Your task to perform on an android device: open sync settings in chrome Image 0: 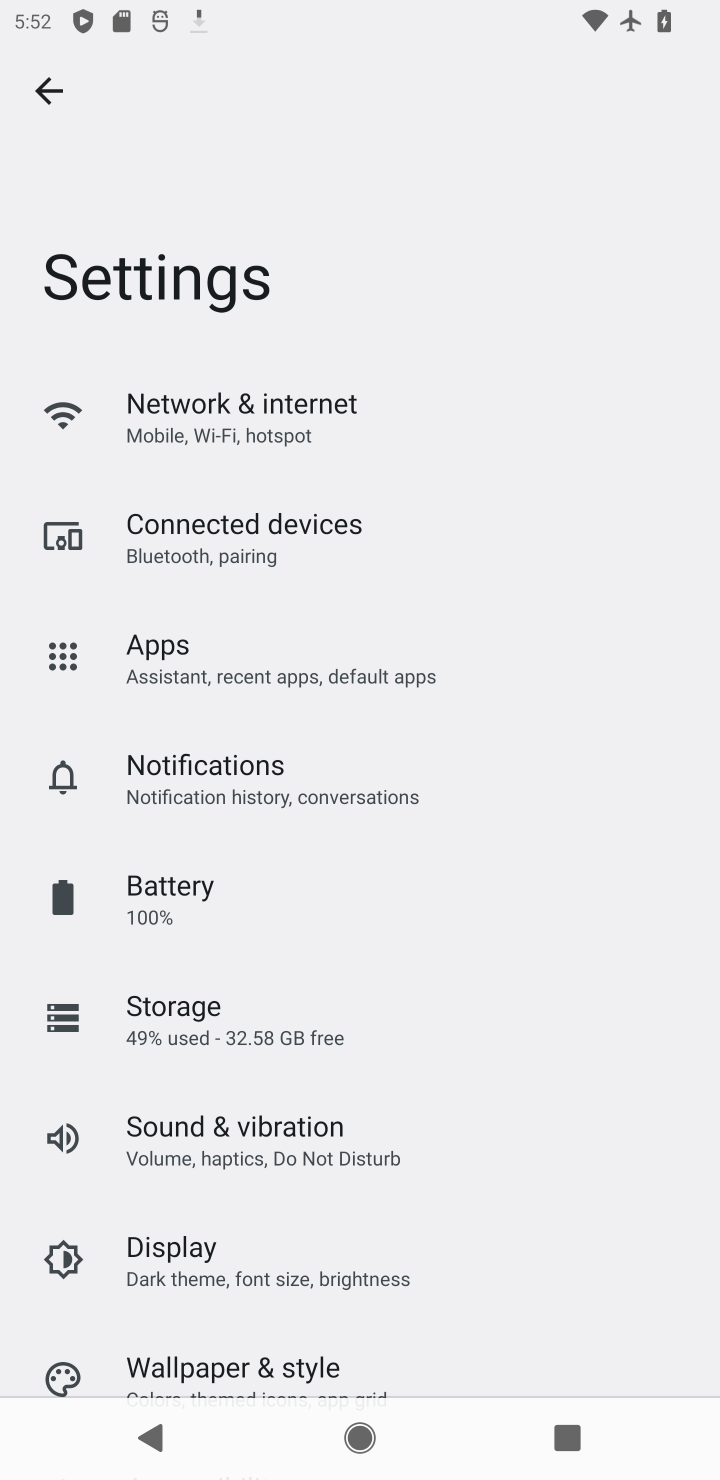
Step 0: press home button
Your task to perform on an android device: open sync settings in chrome Image 1: 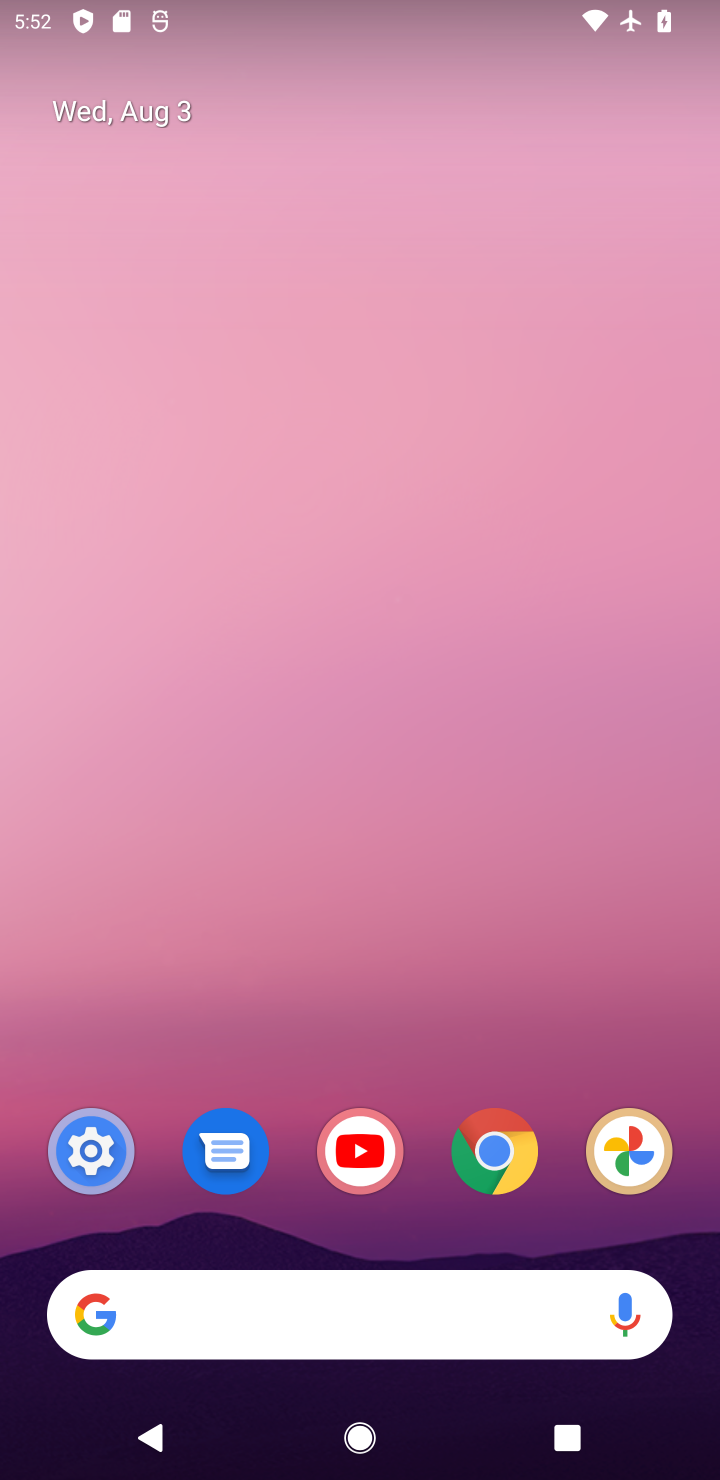
Step 1: click (521, 1161)
Your task to perform on an android device: open sync settings in chrome Image 2: 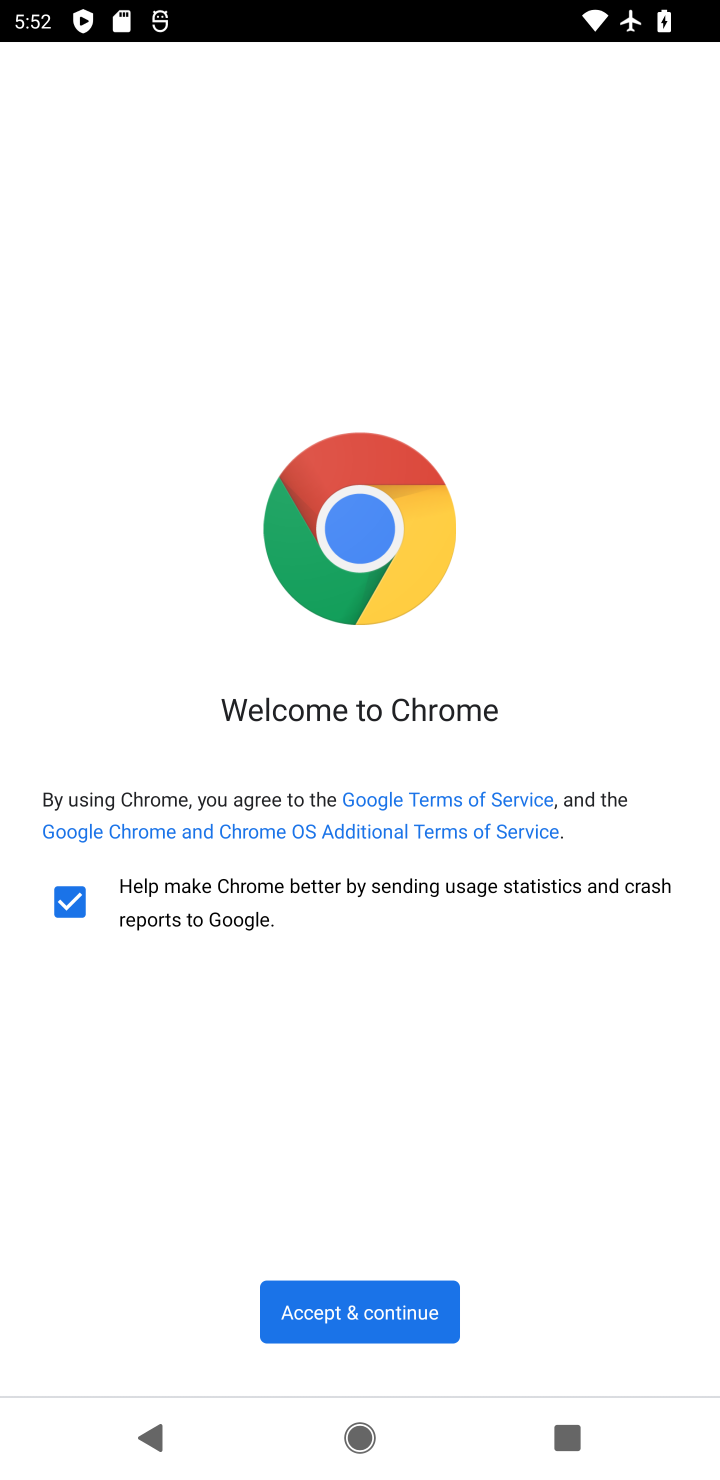
Step 2: click (421, 1298)
Your task to perform on an android device: open sync settings in chrome Image 3: 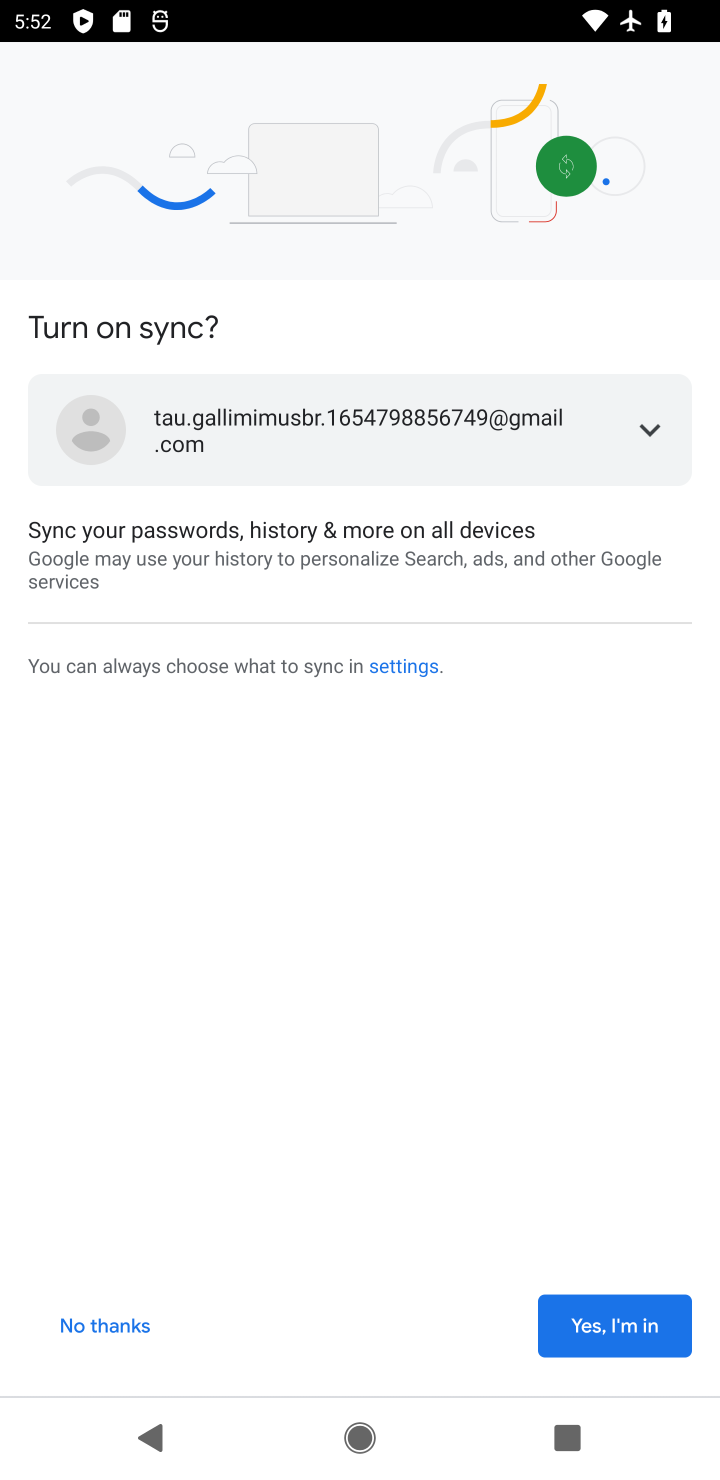
Step 3: click (628, 1315)
Your task to perform on an android device: open sync settings in chrome Image 4: 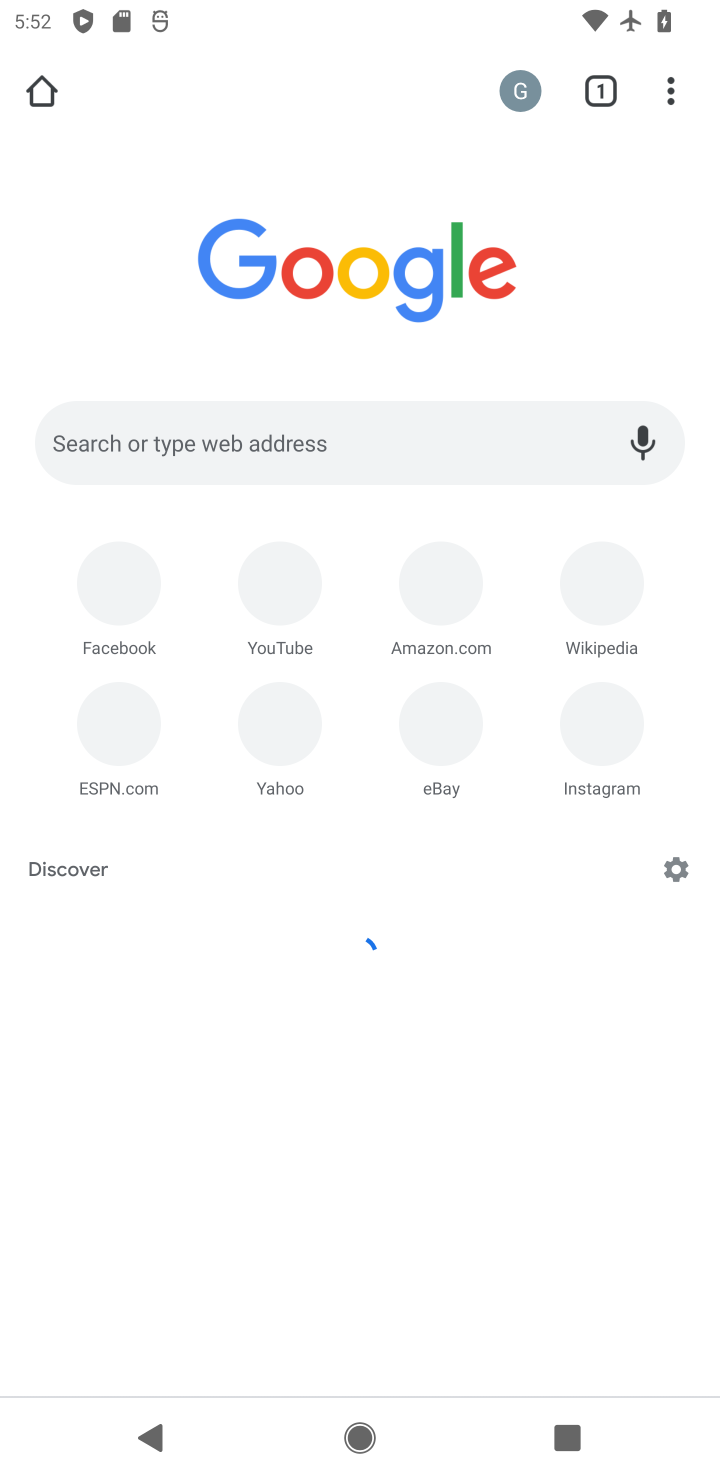
Step 4: click (679, 87)
Your task to perform on an android device: open sync settings in chrome Image 5: 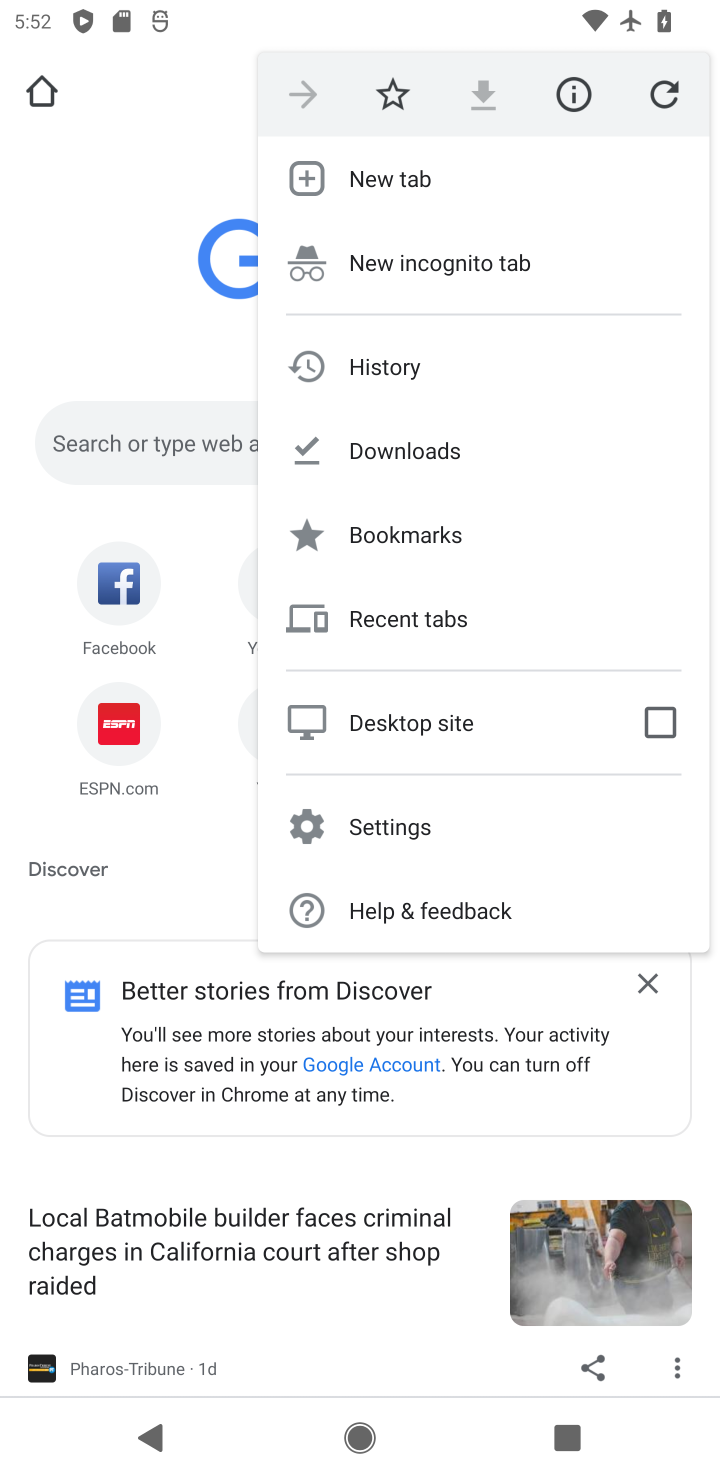
Step 5: click (432, 829)
Your task to perform on an android device: open sync settings in chrome Image 6: 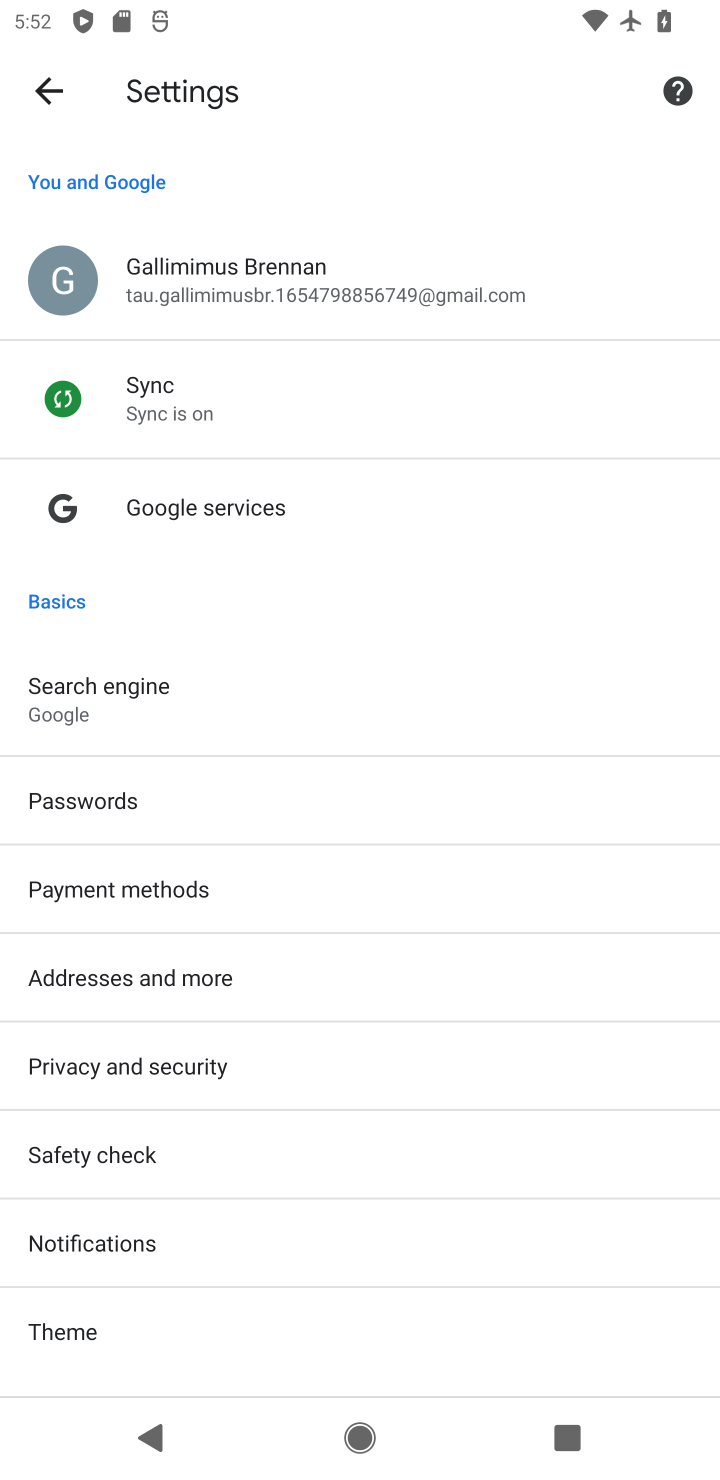
Step 6: click (277, 428)
Your task to perform on an android device: open sync settings in chrome Image 7: 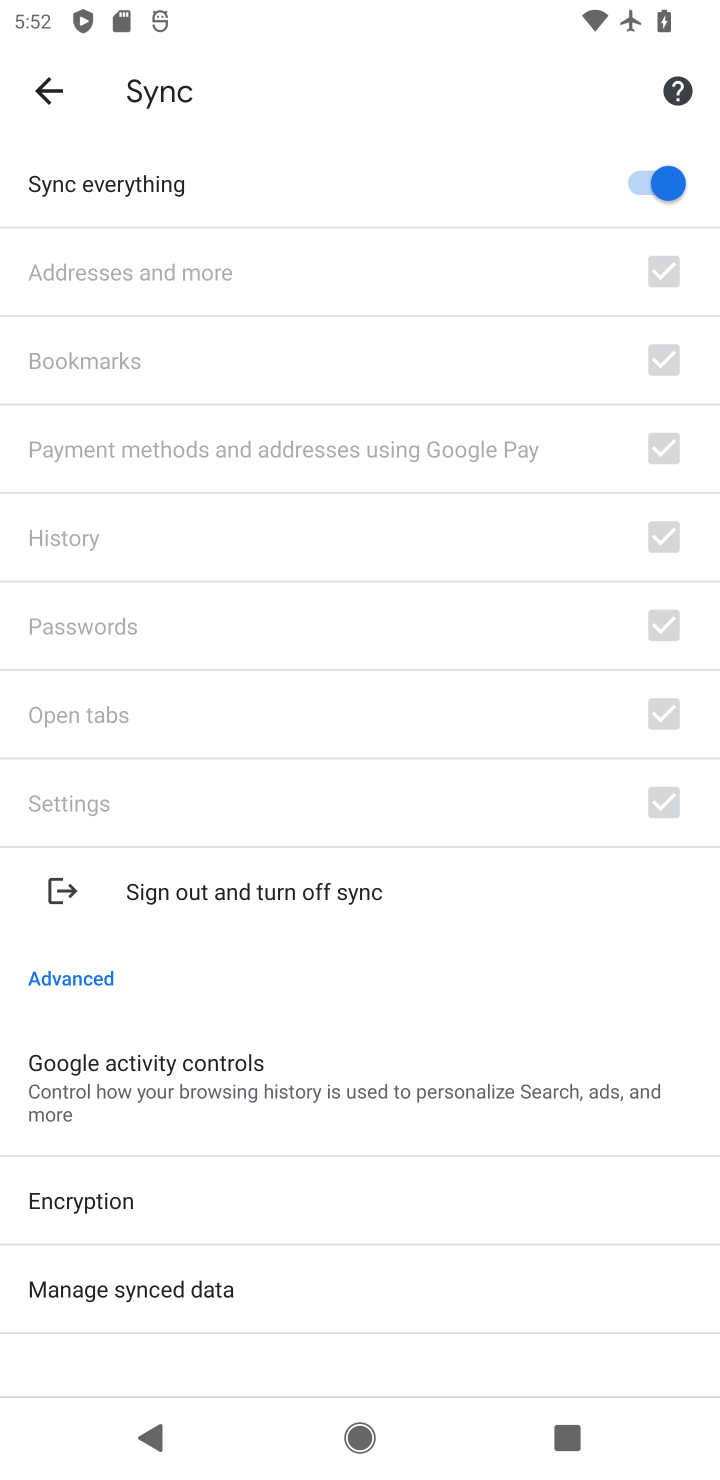
Step 7: task complete